Your task to perform on an android device: delete browsing data in the chrome app Image 0: 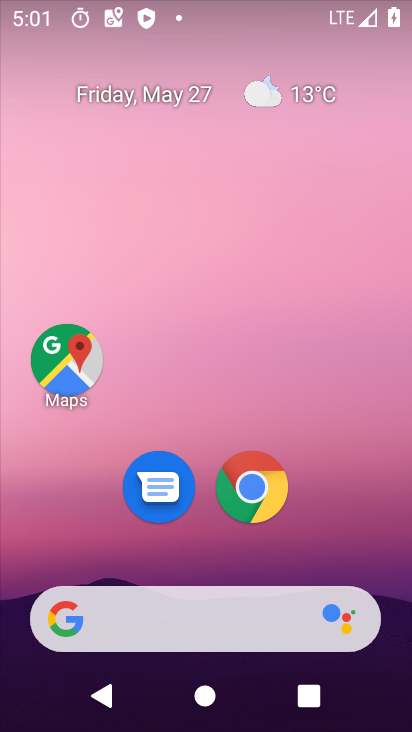
Step 0: click (249, 482)
Your task to perform on an android device: delete browsing data in the chrome app Image 1: 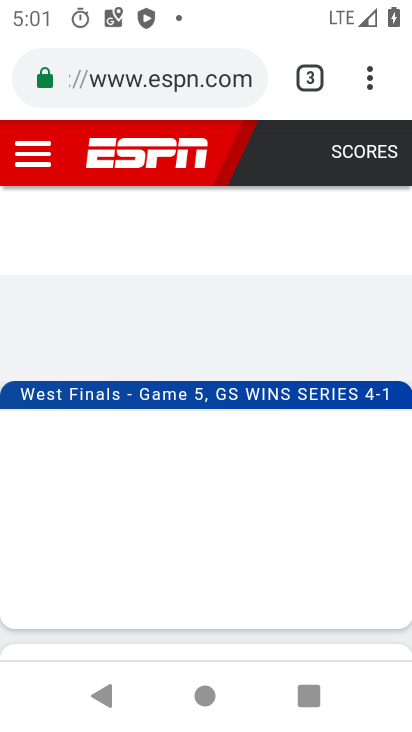
Step 1: click (373, 84)
Your task to perform on an android device: delete browsing data in the chrome app Image 2: 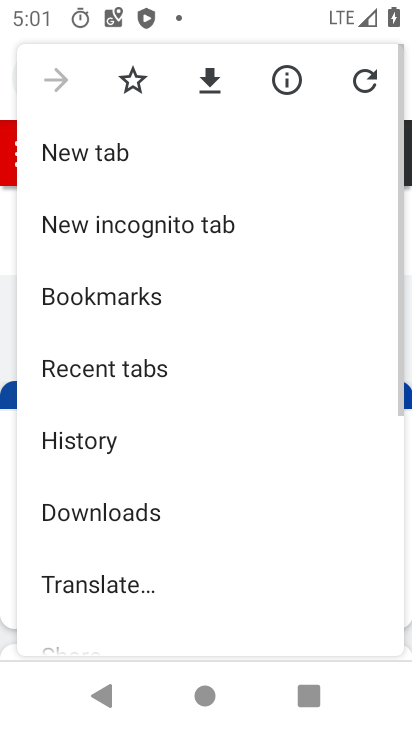
Step 2: drag from (147, 500) to (205, 136)
Your task to perform on an android device: delete browsing data in the chrome app Image 3: 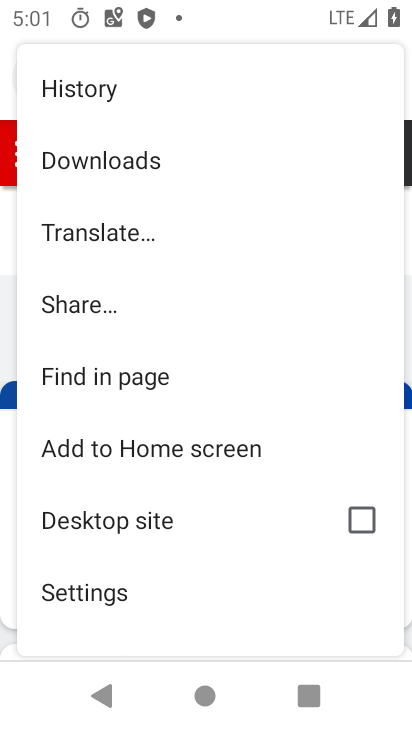
Step 3: drag from (125, 521) to (215, 169)
Your task to perform on an android device: delete browsing data in the chrome app Image 4: 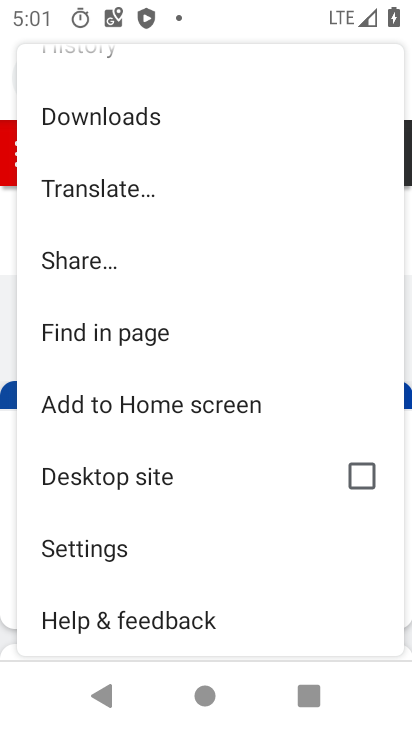
Step 4: drag from (123, 318) to (130, 566)
Your task to perform on an android device: delete browsing data in the chrome app Image 5: 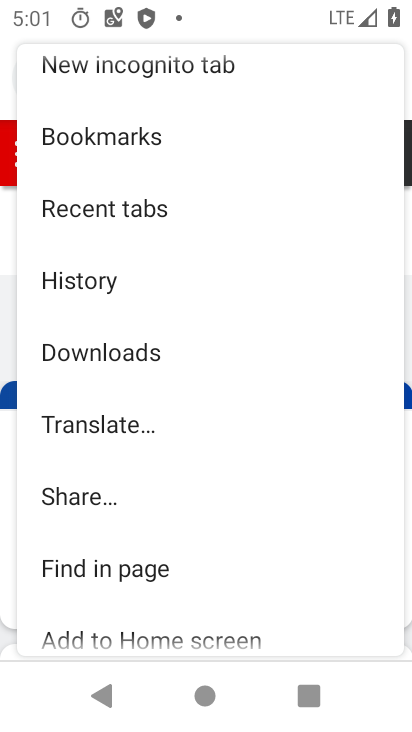
Step 5: click (120, 304)
Your task to perform on an android device: delete browsing data in the chrome app Image 6: 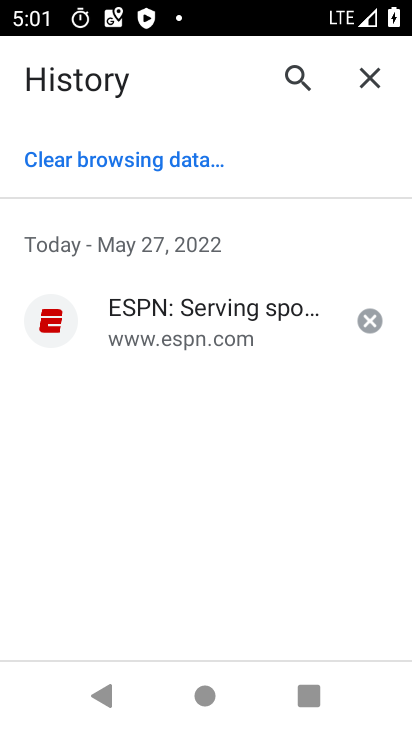
Step 6: click (187, 152)
Your task to perform on an android device: delete browsing data in the chrome app Image 7: 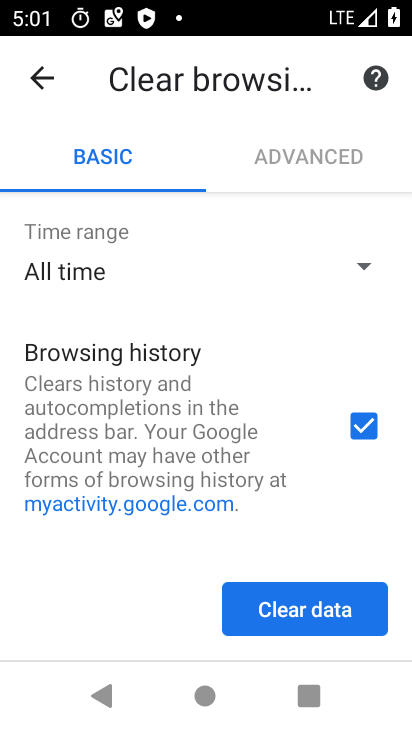
Step 7: click (307, 603)
Your task to perform on an android device: delete browsing data in the chrome app Image 8: 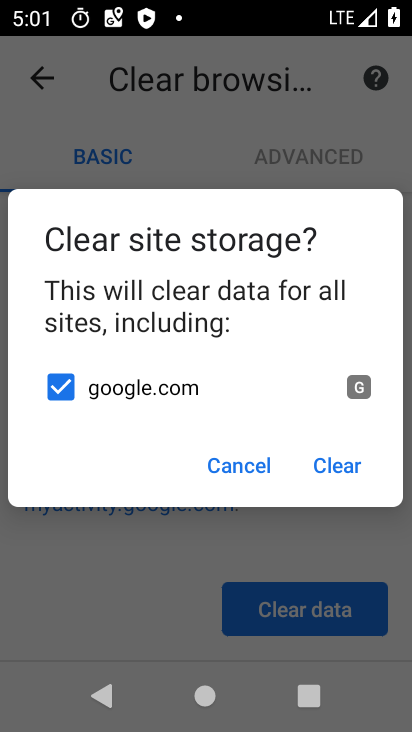
Step 8: click (340, 474)
Your task to perform on an android device: delete browsing data in the chrome app Image 9: 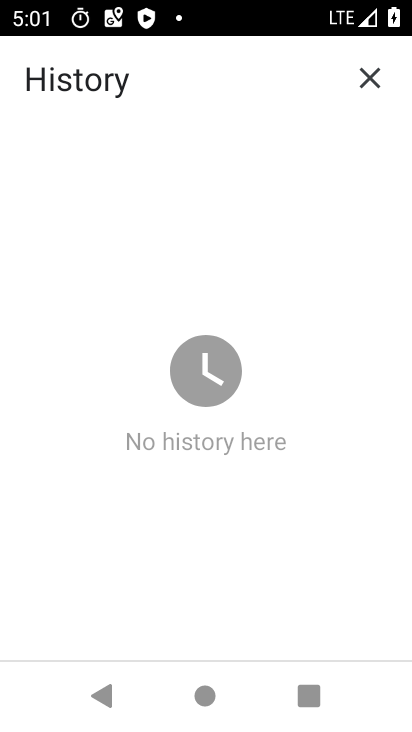
Step 9: task complete